Your task to perform on an android device: find which apps use the phone's location Image 0: 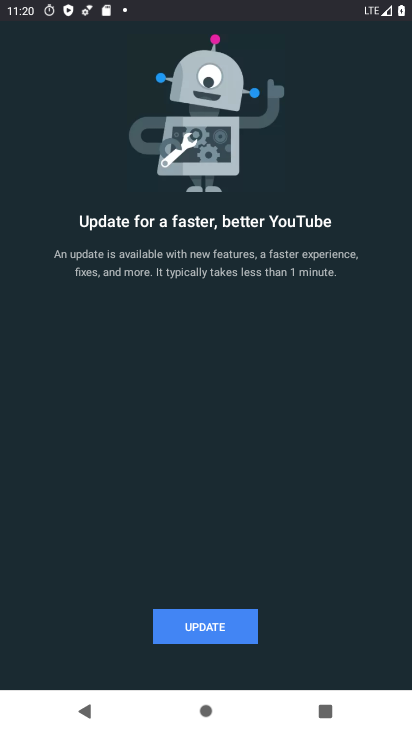
Step 0: press home button
Your task to perform on an android device: find which apps use the phone's location Image 1: 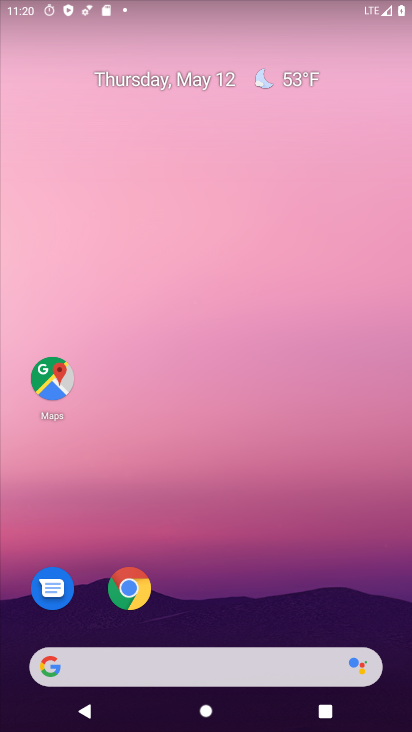
Step 1: drag from (260, 531) to (299, 66)
Your task to perform on an android device: find which apps use the phone's location Image 2: 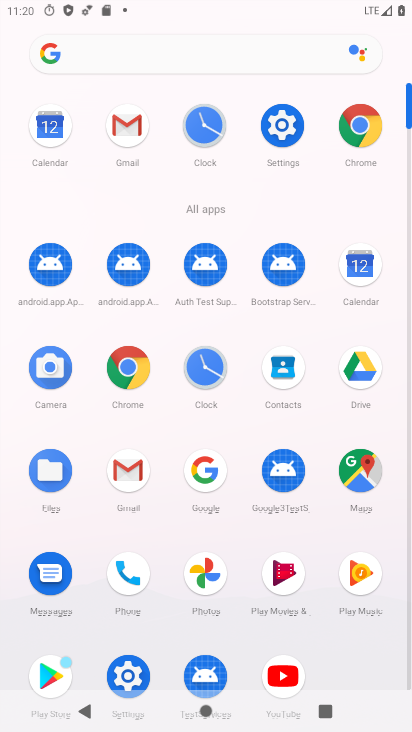
Step 2: click (295, 115)
Your task to perform on an android device: find which apps use the phone's location Image 3: 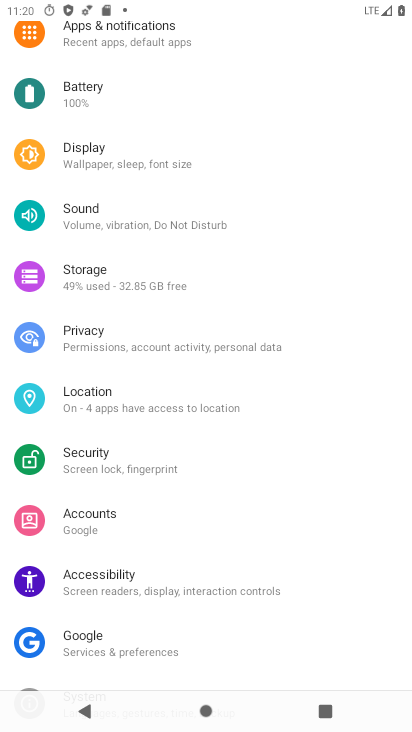
Step 3: click (122, 406)
Your task to perform on an android device: find which apps use the phone's location Image 4: 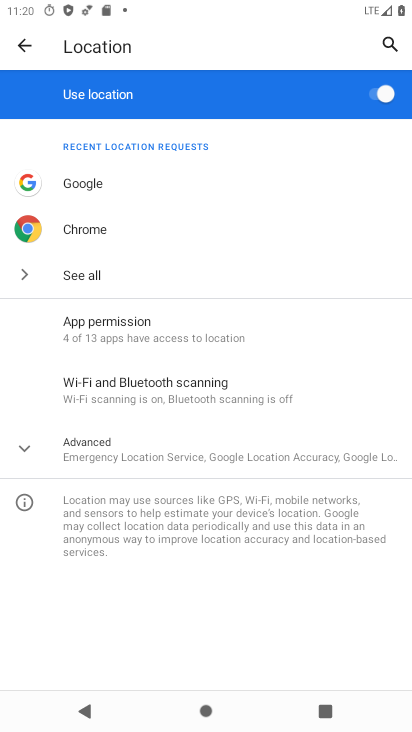
Step 4: click (113, 326)
Your task to perform on an android device: find which apps use the phone's location Image 5: 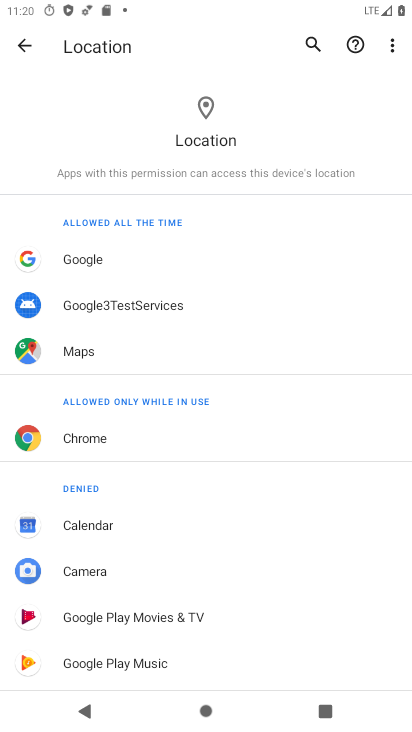
Step 5: task complete